Your task to perform on an android device: turn on improve location accuracy Image 0: 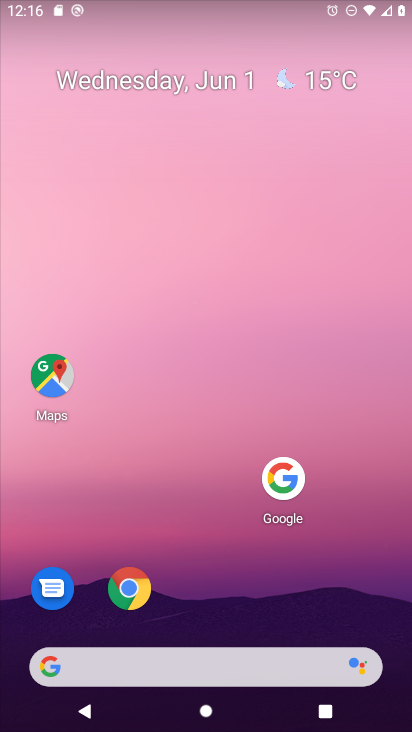
Step 0: drag from (134, 670) to (260, 212)
Your task to perform on an android device: turn on improve location accuracy Image 1: 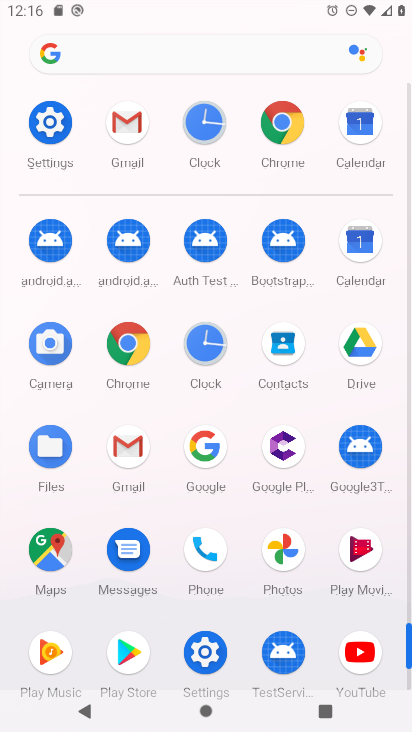
Step 1: click (52, 131)
Your task to perform on an android device: turn on improve location accuracy Image 2: 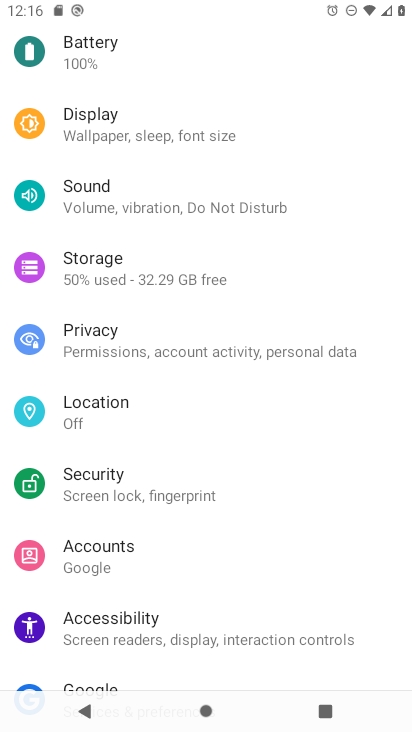
Step 2: click (117, 415)
Your task to perform on an android device: turn on improve location accuracy Image 3: 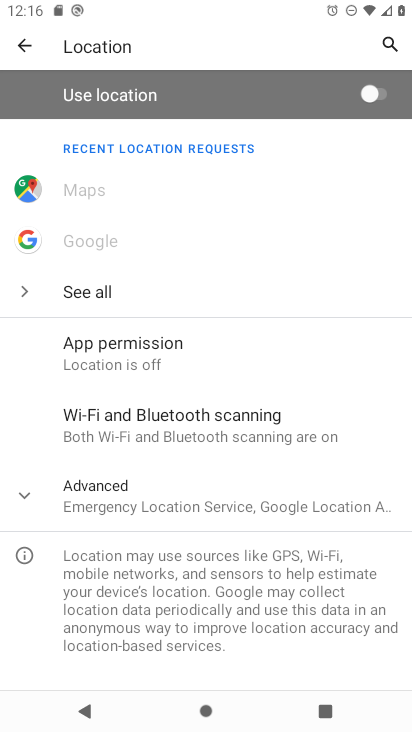
Step 3: click (153, 509)
Your task to perform on an android device: turn on improve location accuracy Image 4: 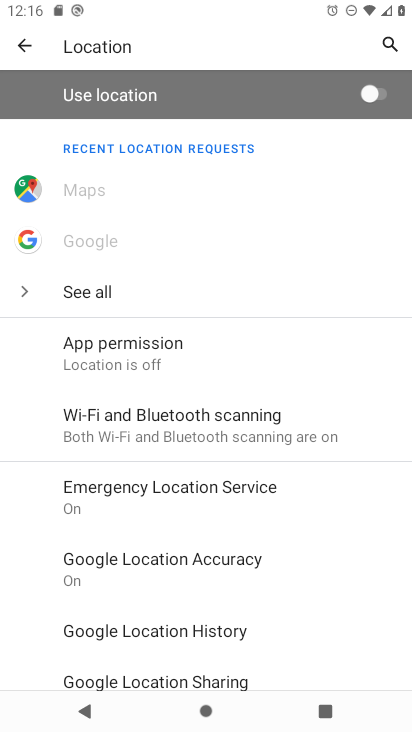
Step 4: click (144, 571)
Your task to perform on an android device: turn on improve location accuracy Image 5: 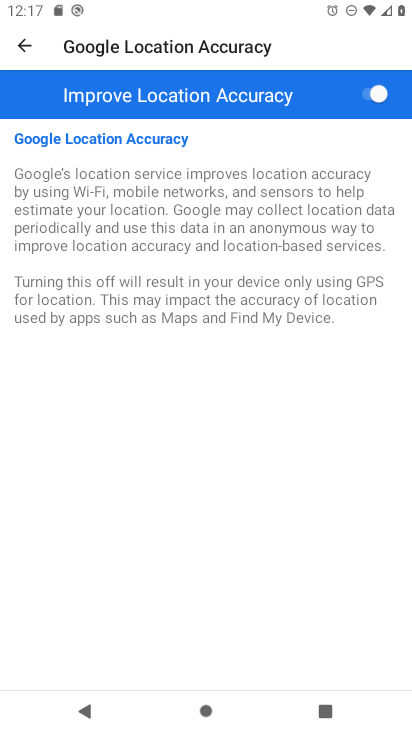
Step 5: task complete